Your task to perform on an android device: What's the weather like in Paris? Image 0: 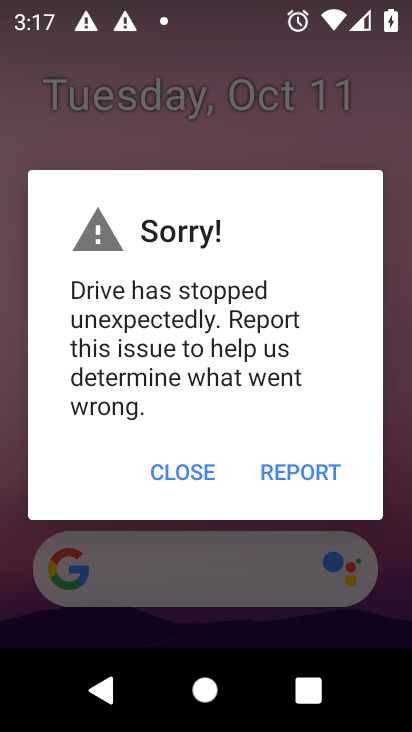
Step 0: press home button
Your task to perform on an android device: What's the weather like in Paris? Image 1: 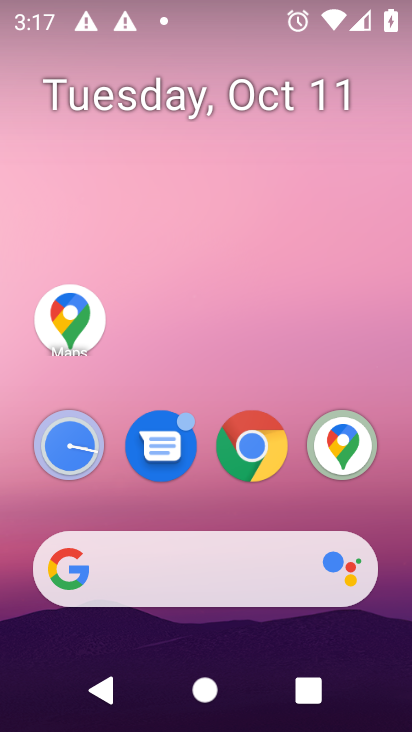
Step 1: click (247, 457)
Your task to perform on an android device: What's the weather like in Paris? Image 2: 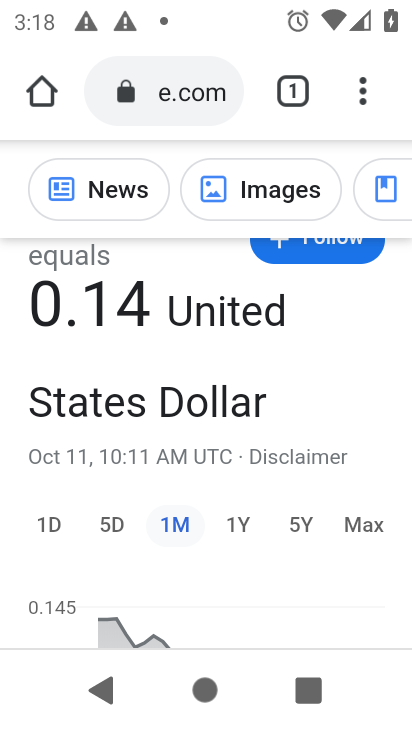
Step 2: click (168, 96)
Your task to perform on an android device: What's the weather like in Paris? Image 3: 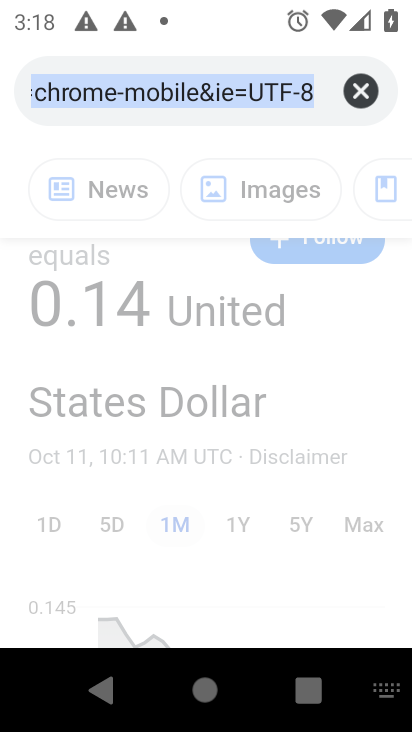
Step 3: click (367, 97)
Your task to perform on an android device: What's the weather like in Paris? Image 4: 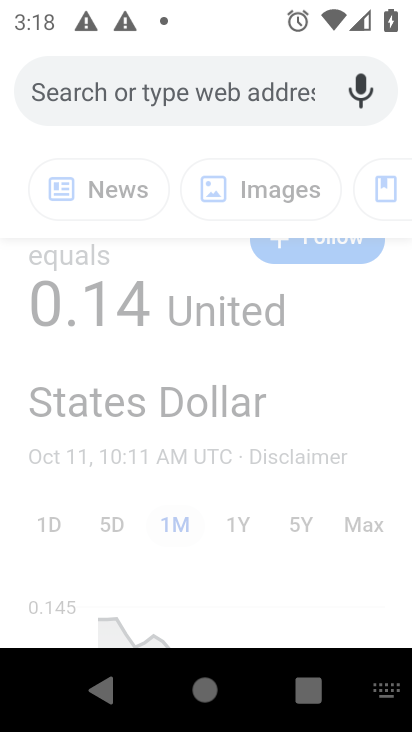
Step 4: type "weather in paris"
Your task to perform on an android device: What's the weather like in Paris? Image 5: 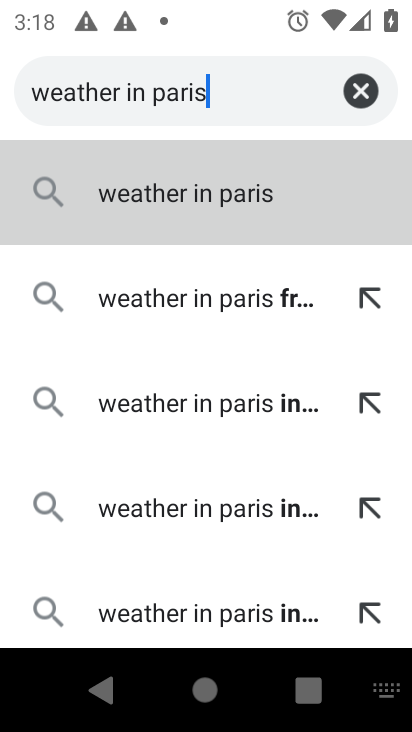
Step 5: click (134, 190)
Your task to perform on an android device: What's the weather like in Paris? Image 6: 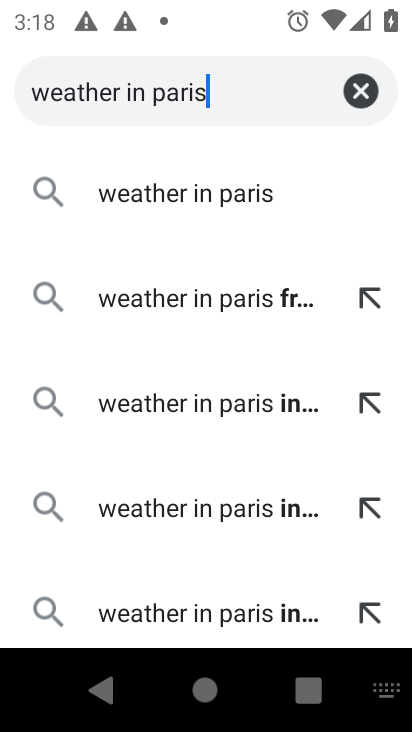
Step 6: click (191, 197)
Your task to perform on an android device: What's the weather like in Paris? Image 7: 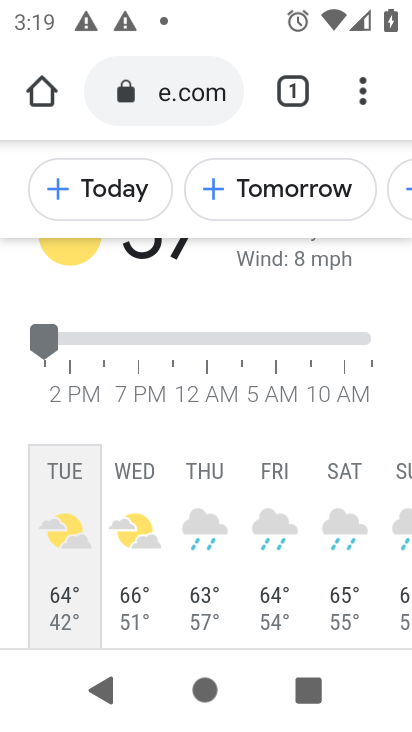
Step 7: task complete